Your task to perform on an android device: open a new tab in the chrome app Image 0: 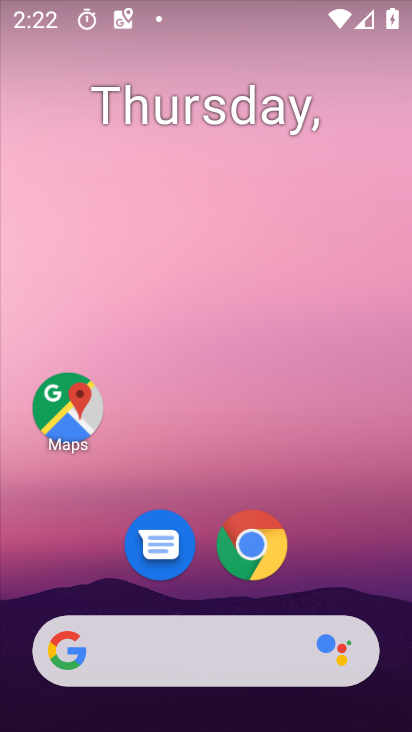
Step 0: click (254, 544)
Your task to perform on an android device: open a new tab in the chrome app Image 1: 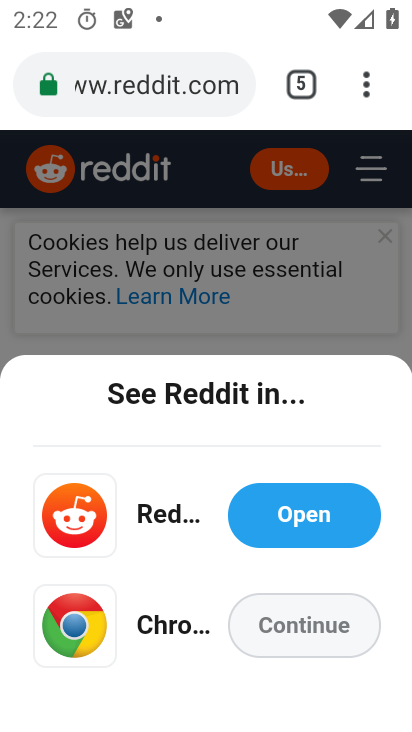
Step 1: click (367, 93)
Your task to perform on an android device: open a new tab in the chrome app Image 2: 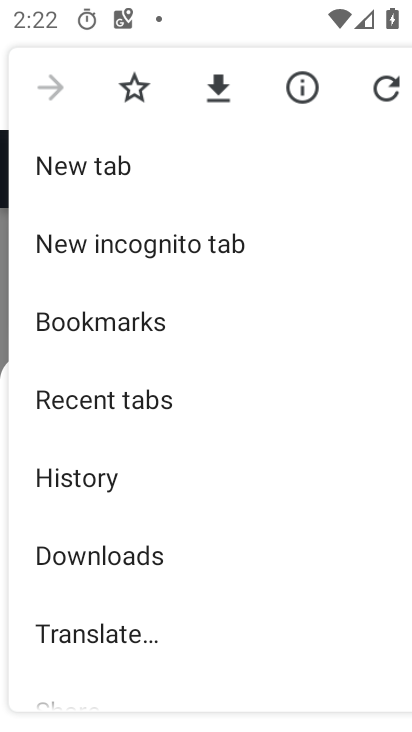
Step 2: click (103, 164)
Your task to perform on an android device: open a new tab in the chrome app Image 3: 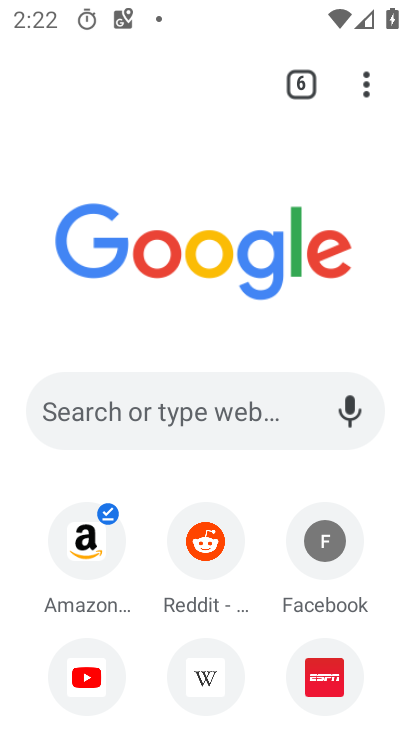
Step 3: task complete